Your task to perform on an android device: open app "PUBG MOBILE" (install if not already installed) Image 0: 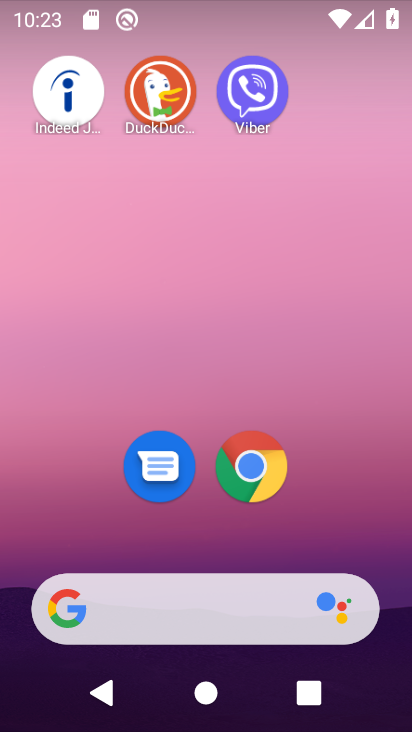
Step 0: drag from (231, 642) to (215, 177)
Your task to perform on an android device: open app "PUBG MOBILE" (install if not already installed) Image 1: 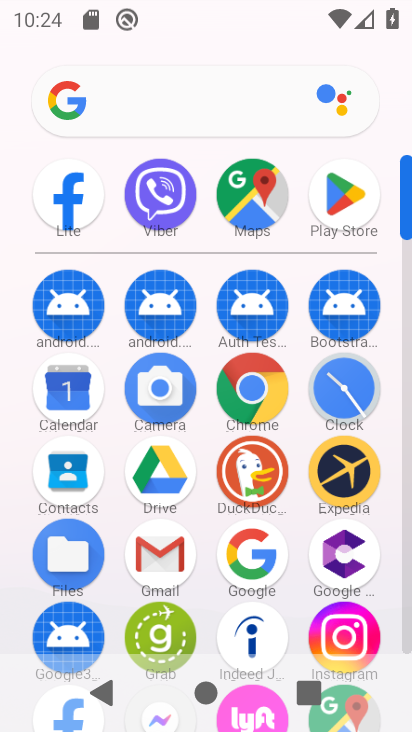
Step 1: click (343, 192)
Your task to perform on an android device: open app "PUBG MOBILE" (install if not already installed) Image 2: 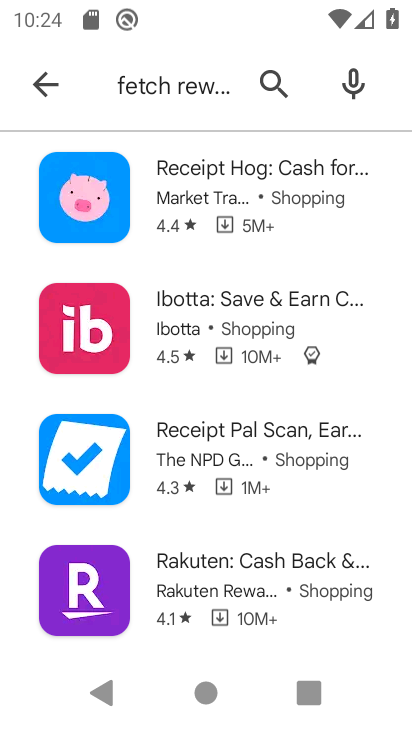
Step 2: click (275, 84)
Your task to perform on an android device: open app "PUBG MOBILE" (install if not already installed) Image 3: 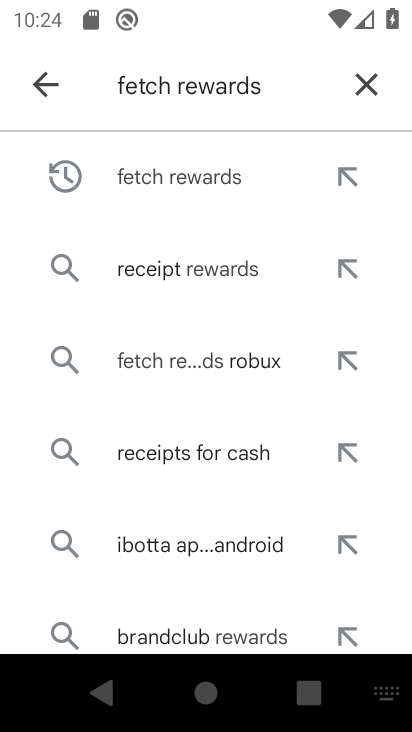
Step 3: click (364, 82)
Your task to perform on an android device: open app "PUBG MOBILE" (install if not already installed) Image 4: 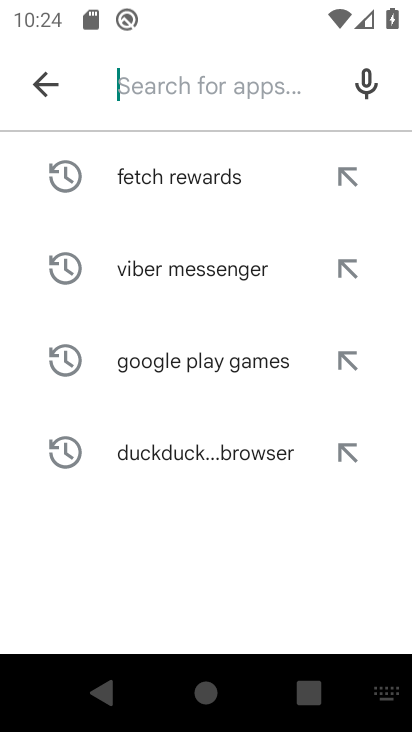
Step 4: type "PUBG MOBILE"
Your task to perform on an android device: open app "PUBG MOBILE" (install if not already installed) Image 5: 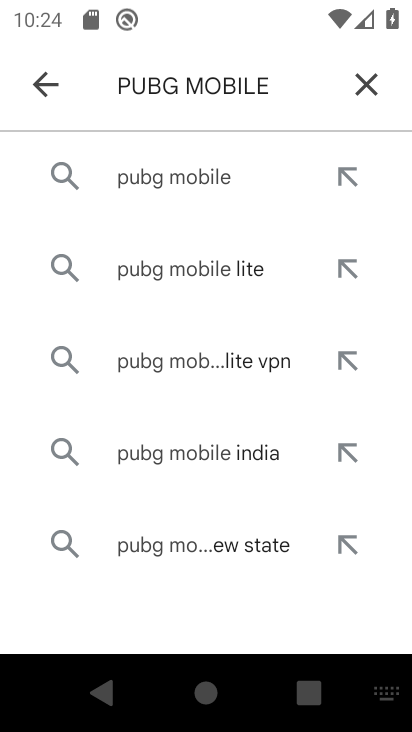
Step 5: click (198, 170)
Your task to perform on an android device: open app "PUBG MOBILE" (install if not already installed) Image 6: 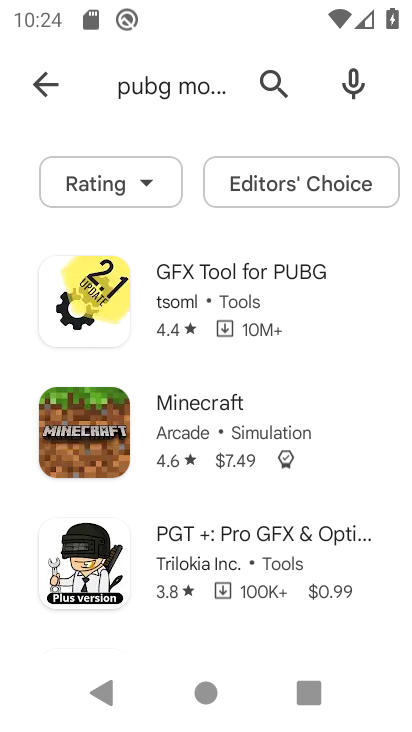
Step 6: task complete